Your task to perform on an android device: Look up the best rated hair dryer on Walmart. Image 0: 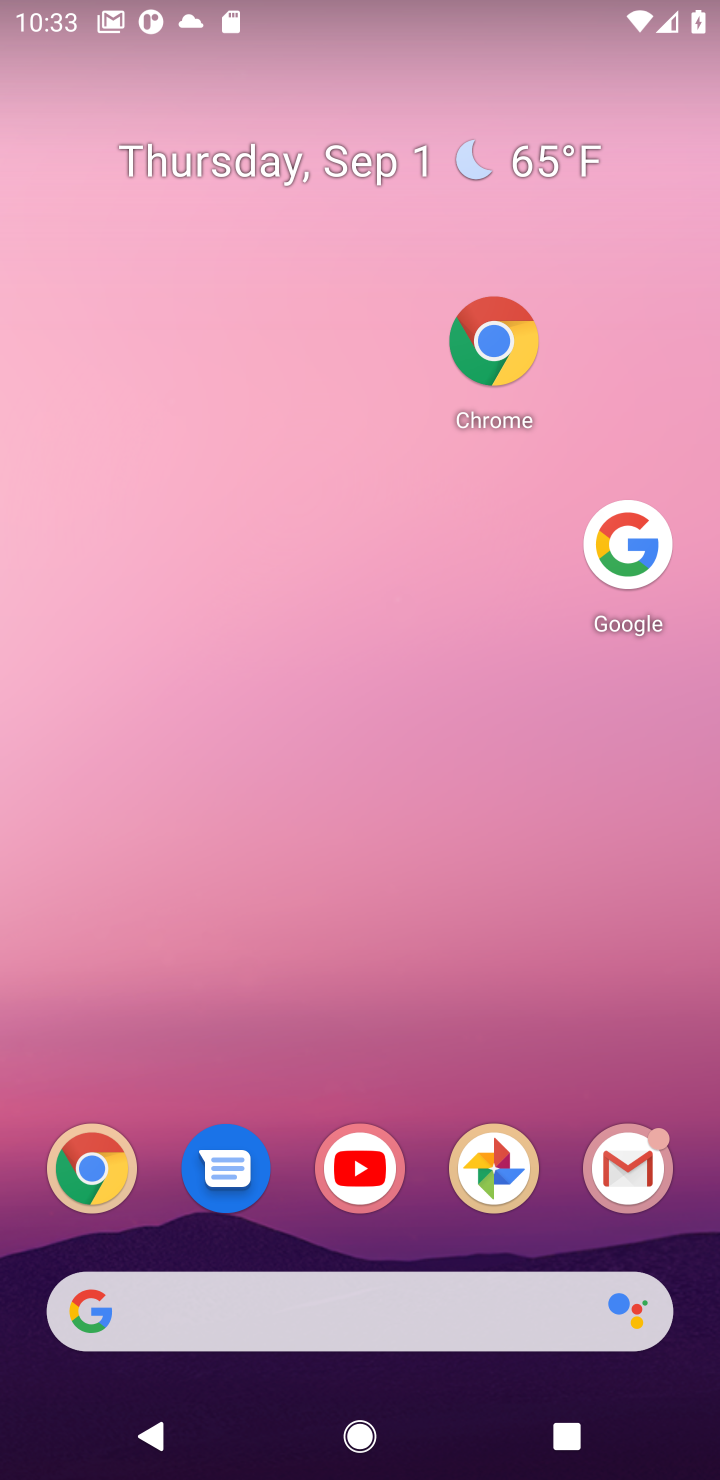
Step 0: drag from (401, 651) to (401, 396)
Your task to perform on an android device: Look up the best rated hair dryer on Walmart. Image 1: 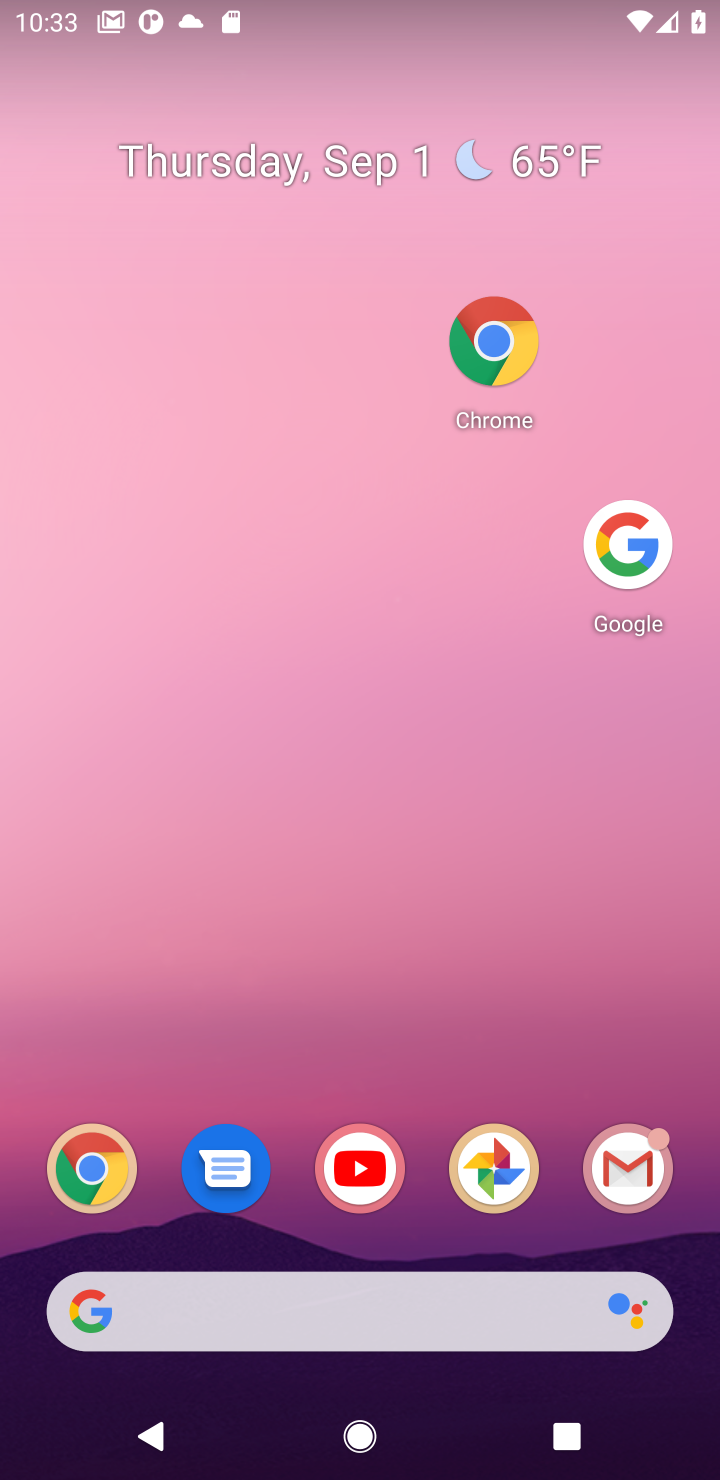
Step 1: click (392, 251)
Your task to perform on an android device: Look up the best rated hair dryer on Walmart. Image 2: 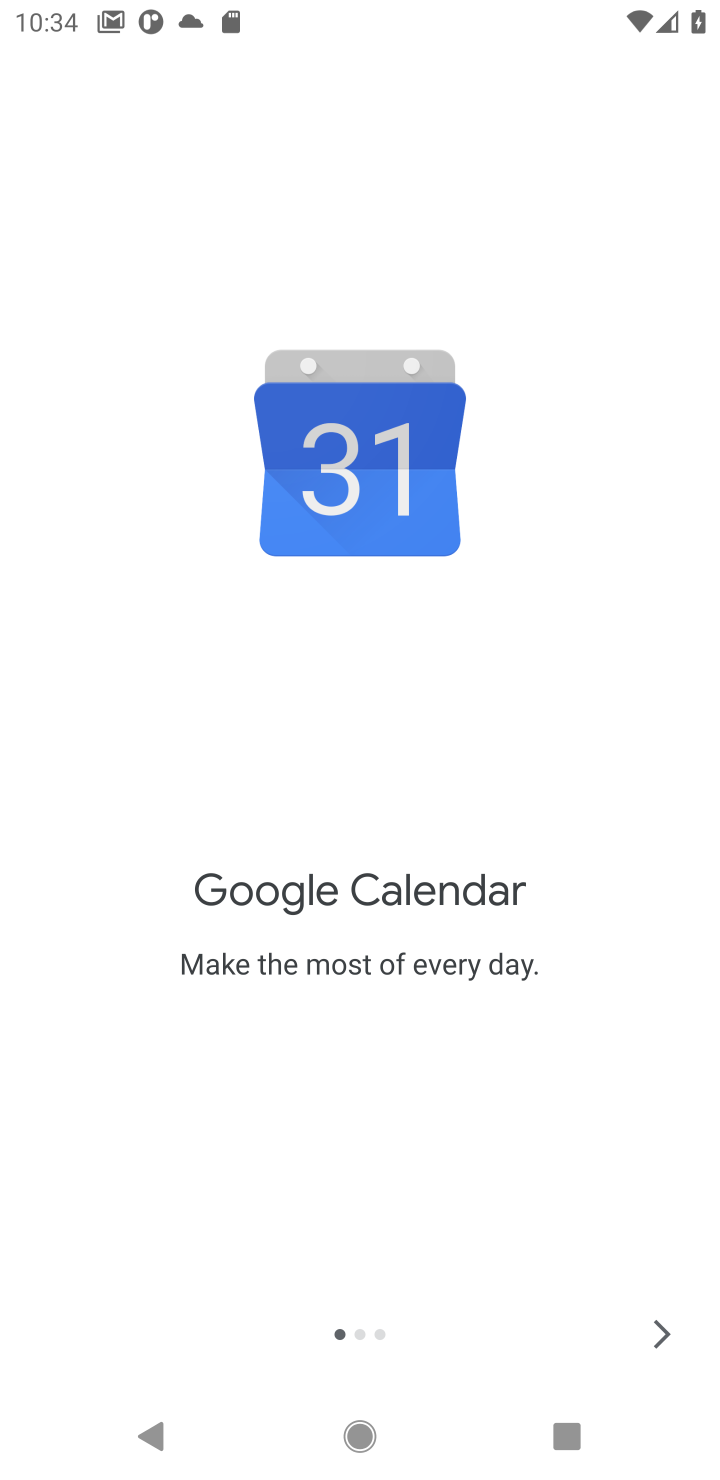
Step 2: press home button
Your task to perform on an android device: Look up the best rated hair dryer on Walmart. Image 3: 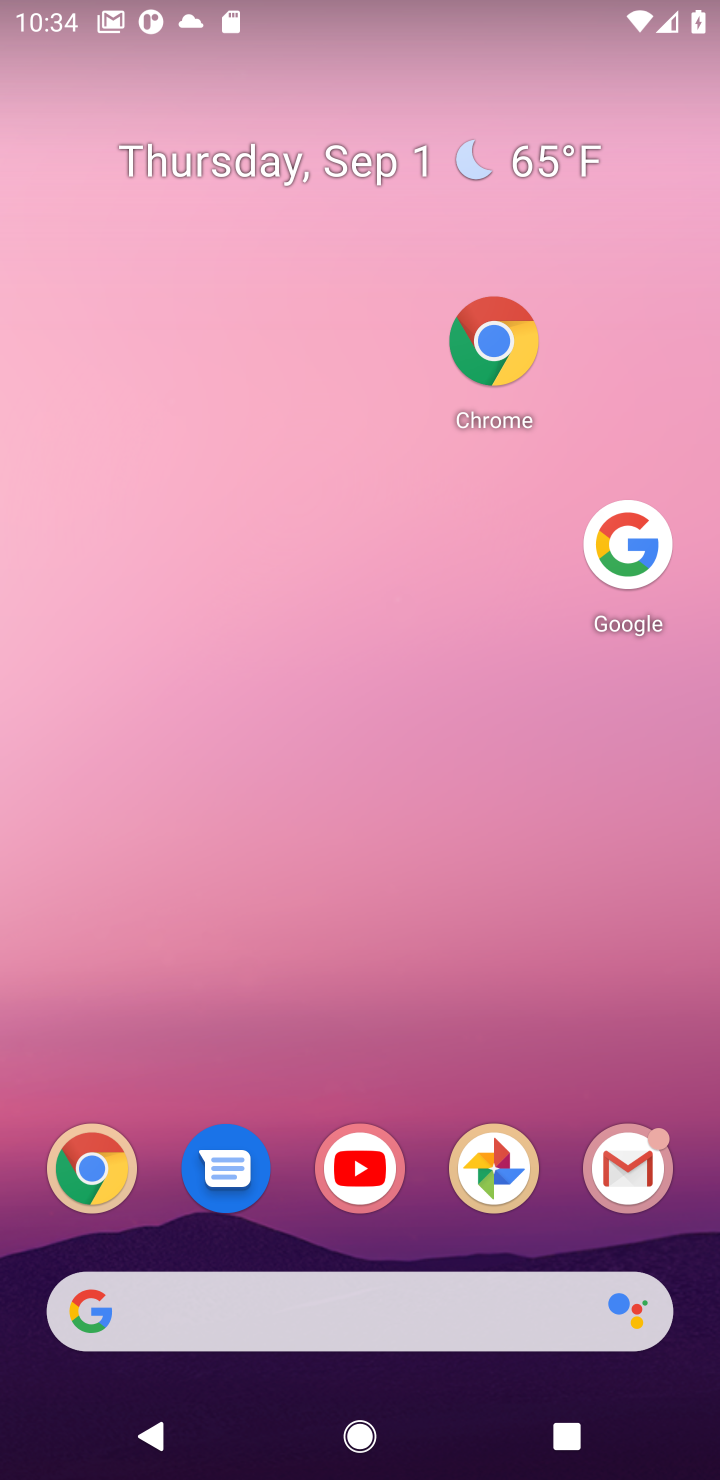
Step 3: click (600, 527)
Your task to perform on an android device: Look up the best rated hair dryer on Walmart. Image 4: 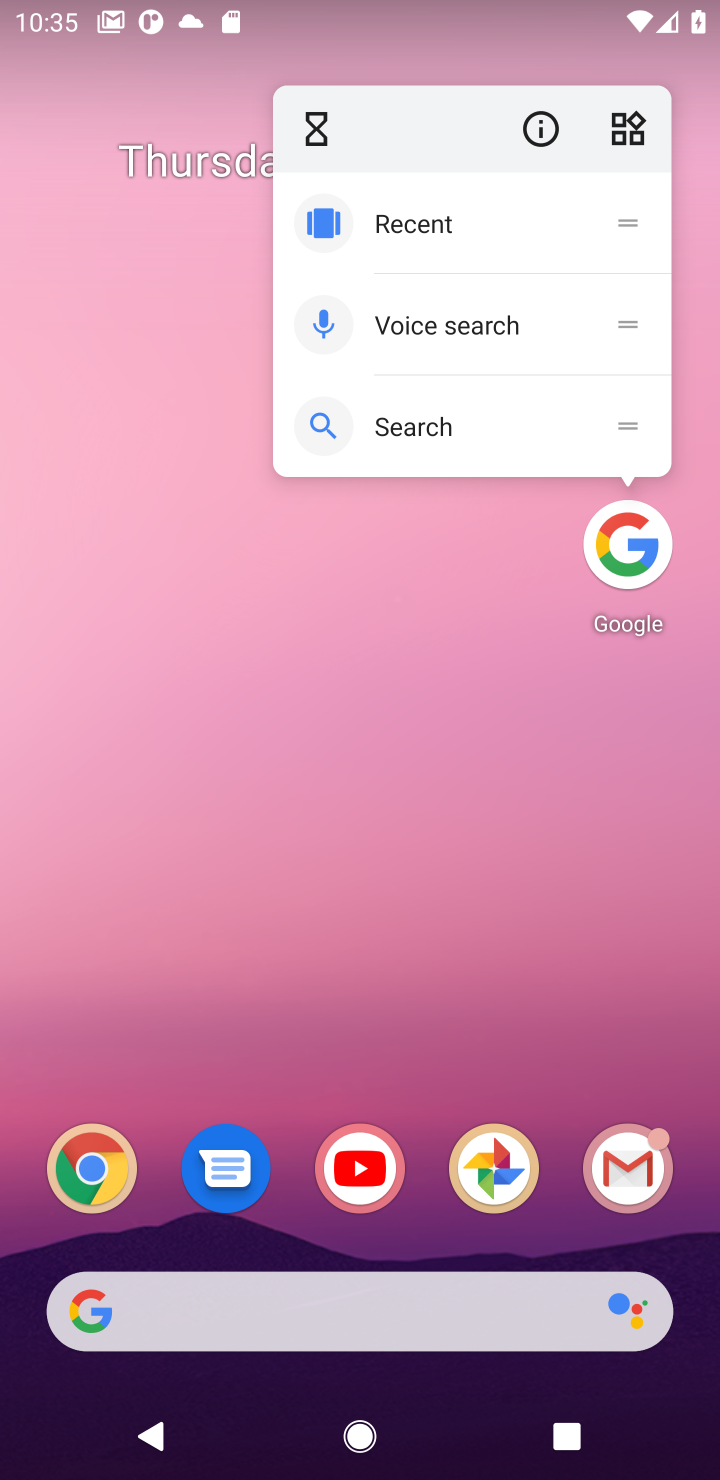
Step 4: click (621, 549)
Your task to perform on an android device: Look up the best rated hair dryer on Walmart. Image 5: 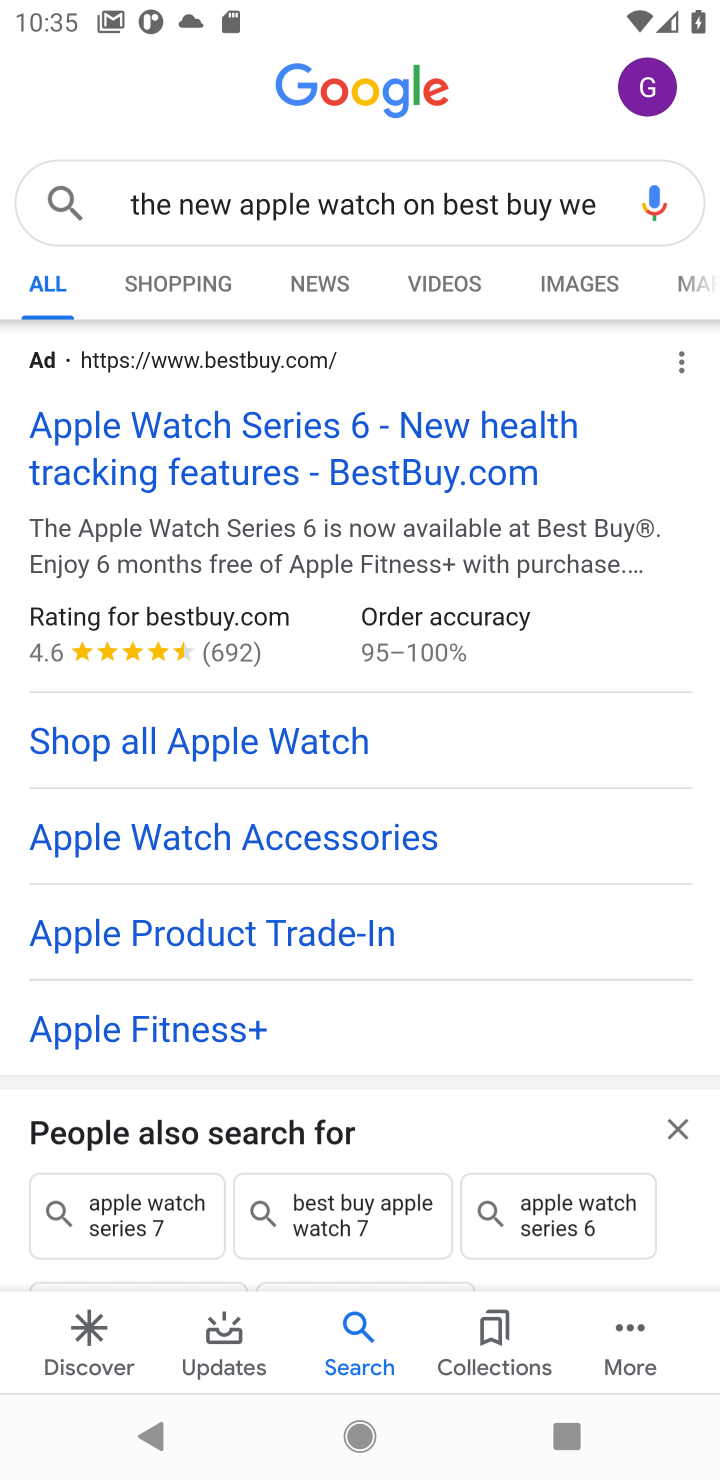
Step 5: click (570, 208)
Your task to perform on an android device: Look up the best rated hair dryer on Walmart. Image 6: 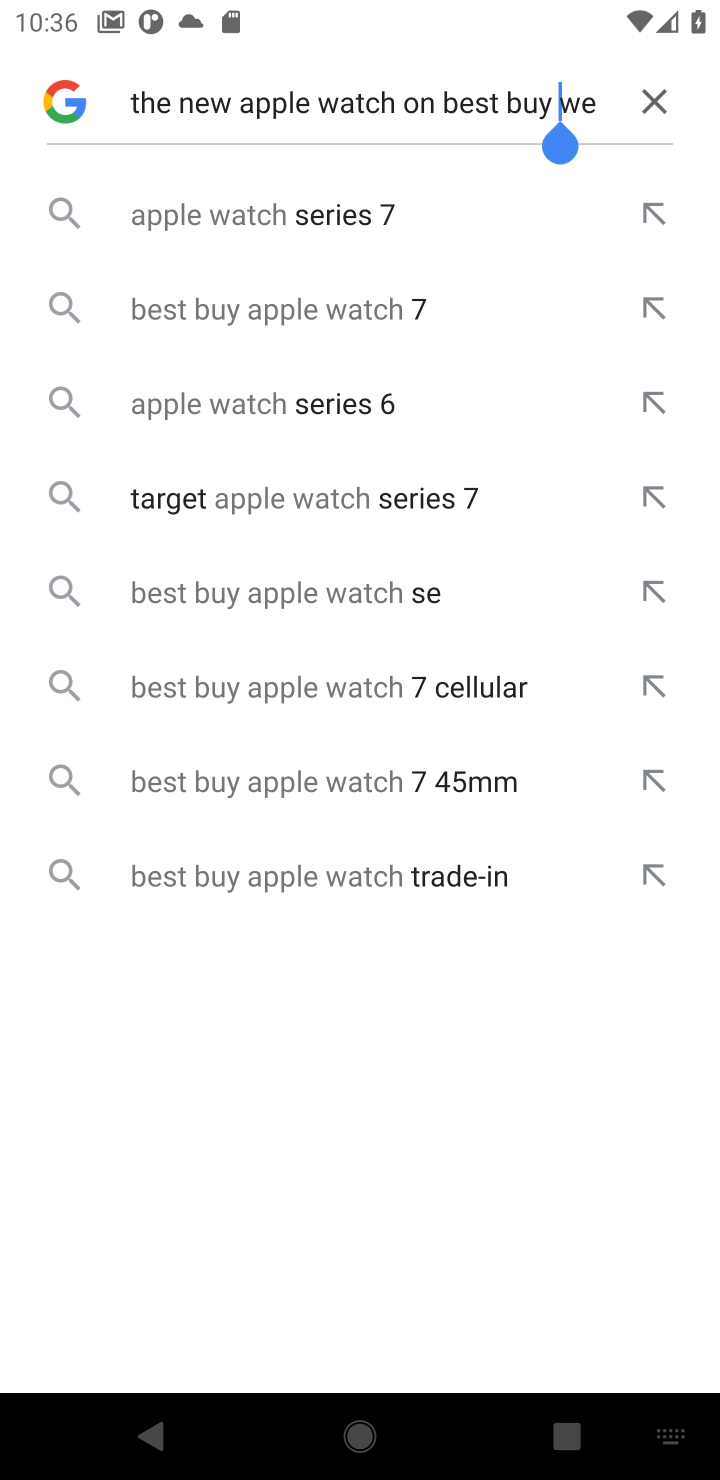
Step 6: click (652, 101)
Your task to perform on an android device: Look up the best rated hair dryer on Walmart. Image 7: 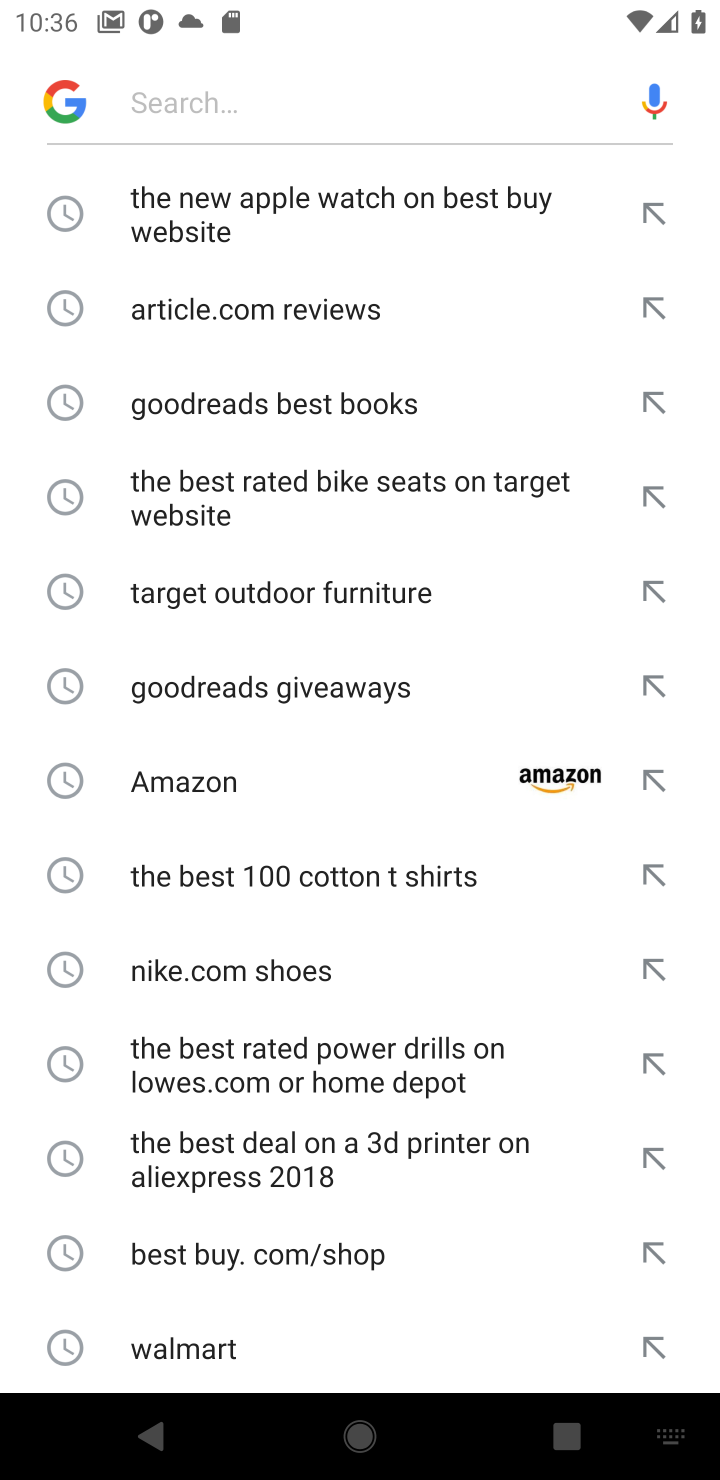
Step 7: click (167, 1338)
Your task to perform on an android device: Look up the best rated hair dryer on Walmart. Image 8: 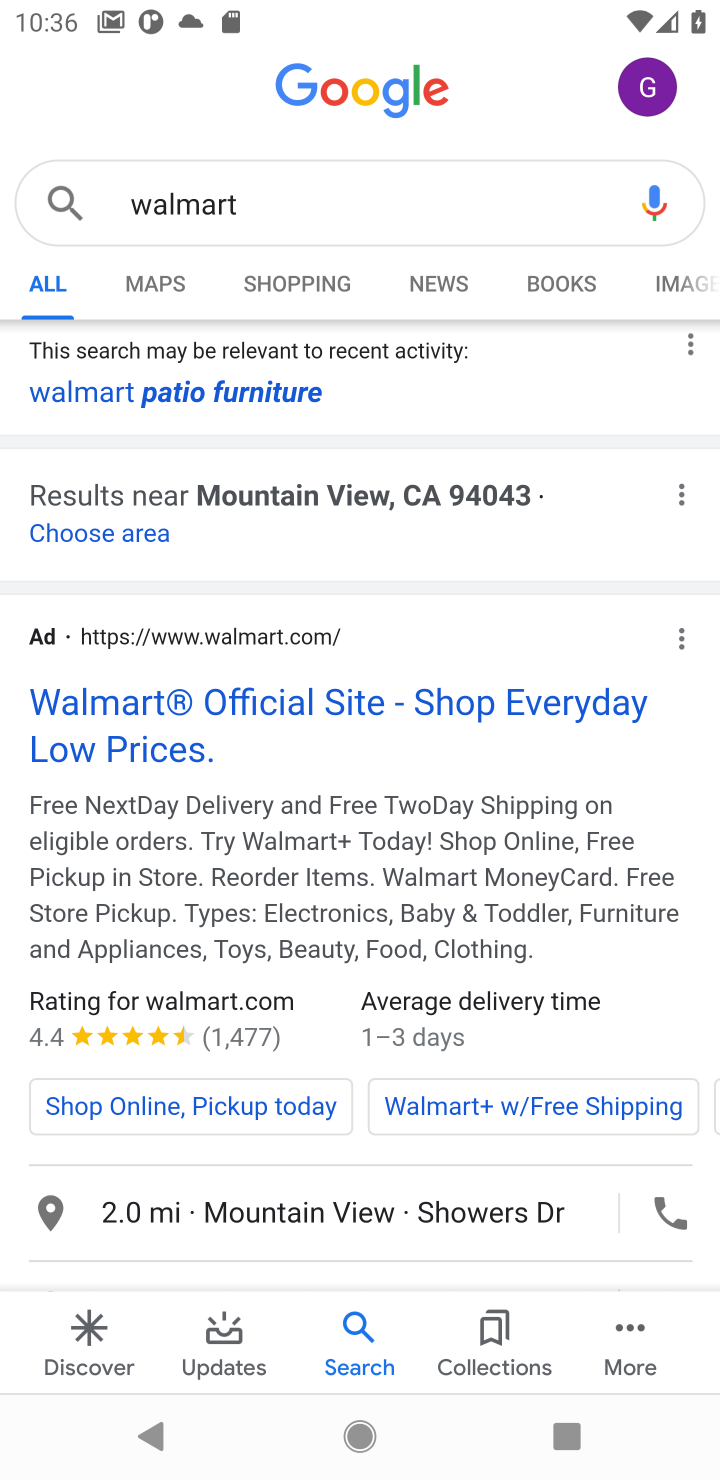
Step 8: click (137, 715)
Your task to perform on an android device: Look up the best rated hair dryer on Walmart. Image 9: 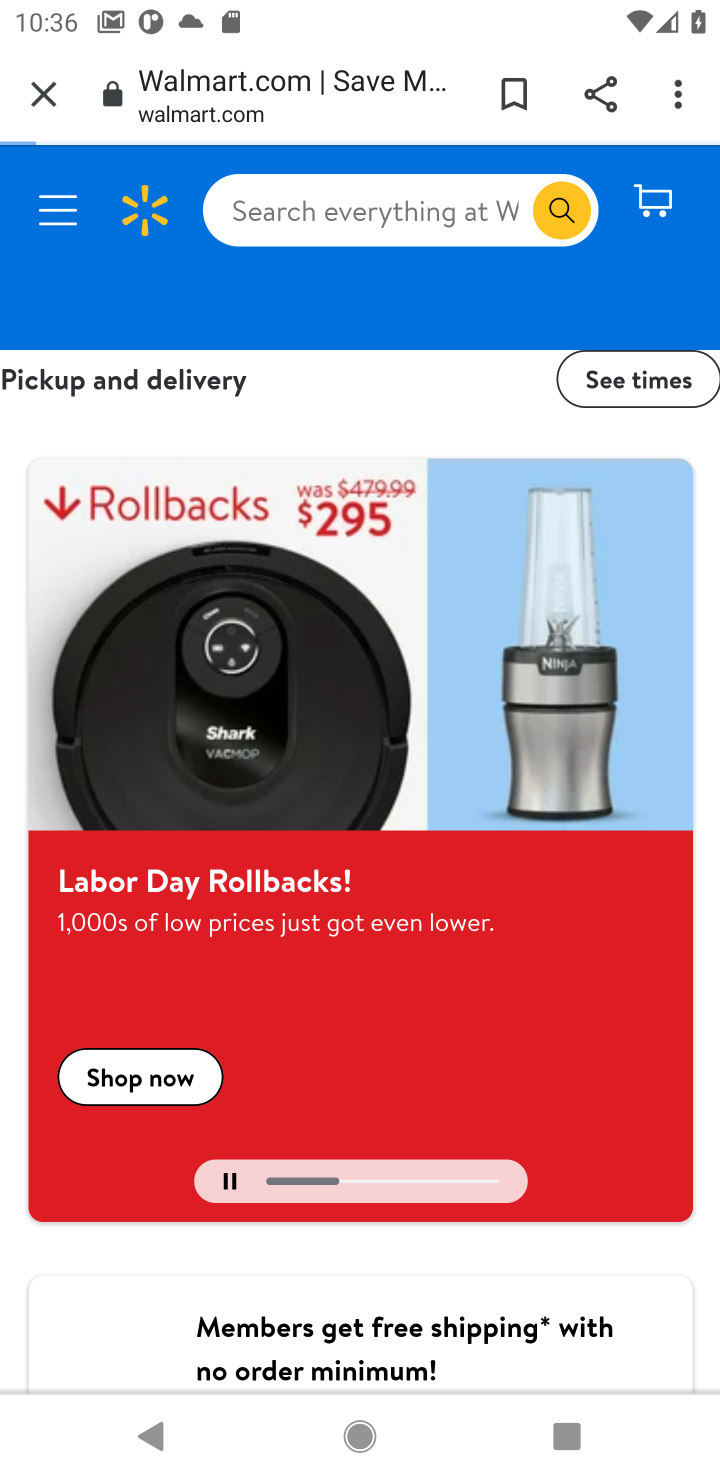
Step 9: click (348, 197)
Your task to perform on an android device: Look up the best rated hair dryer on Walmart. Image 10: 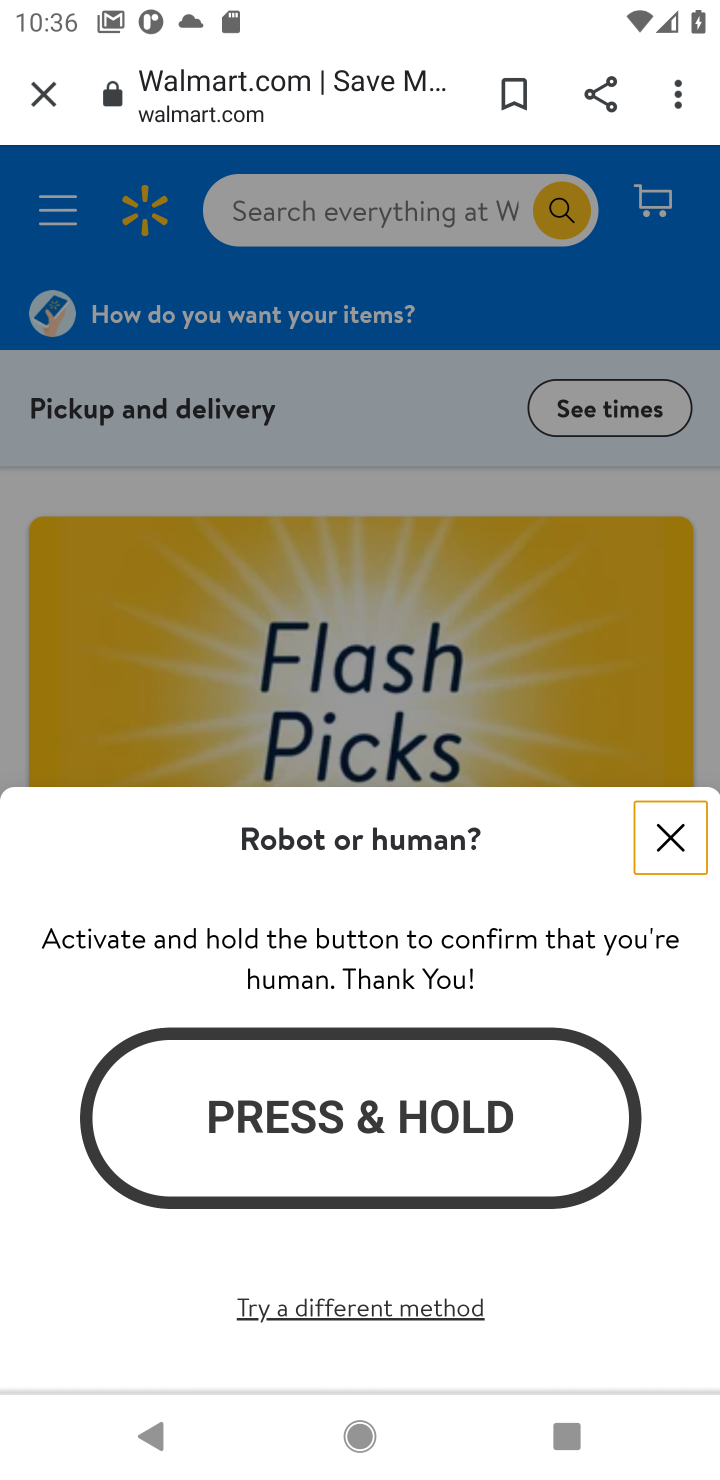
Step 10: click (306, 208)
Your task to perform on an android device: Look up the best rated hair dryer on Walmart. Image 11: 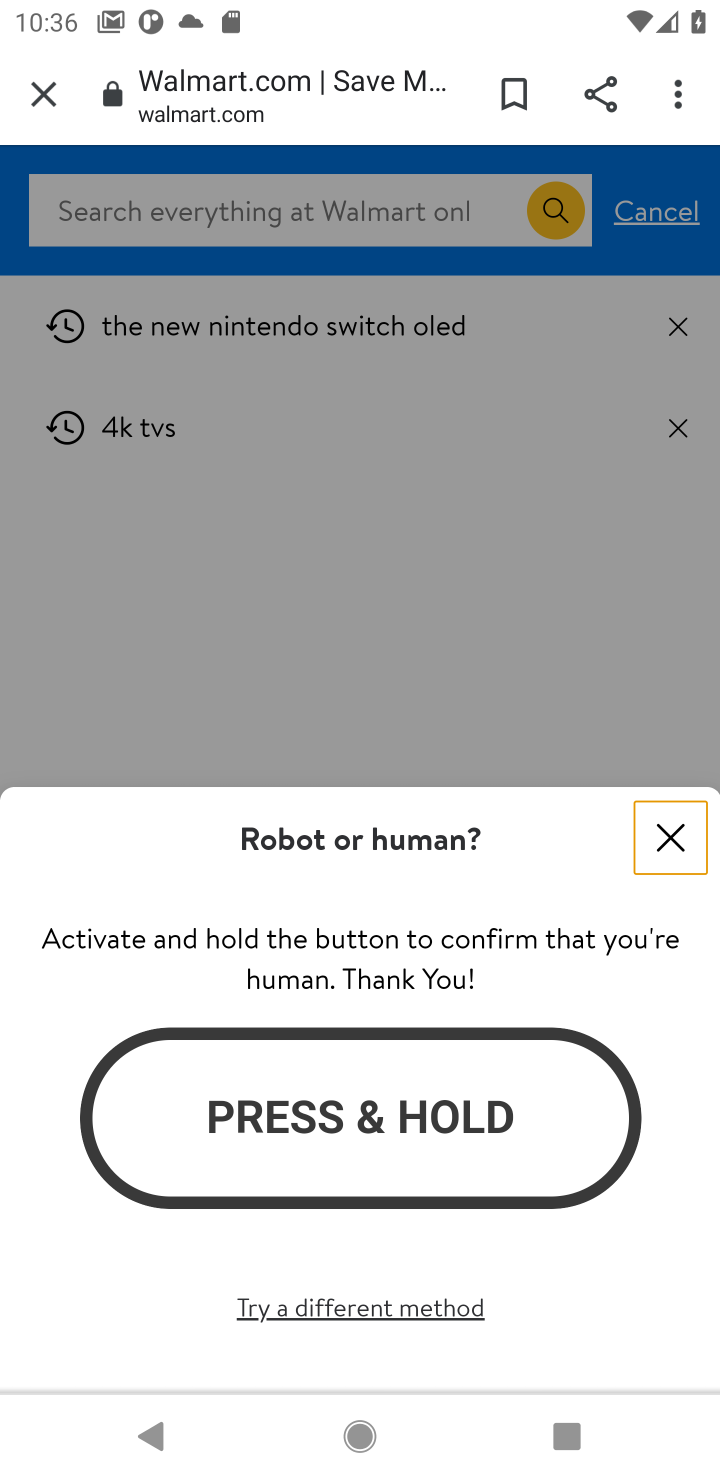
Step 11: type "the best rated hair dryer "
Your task to perform on an android device: Look up the best rated hair dryer on Walmart. Image 12: 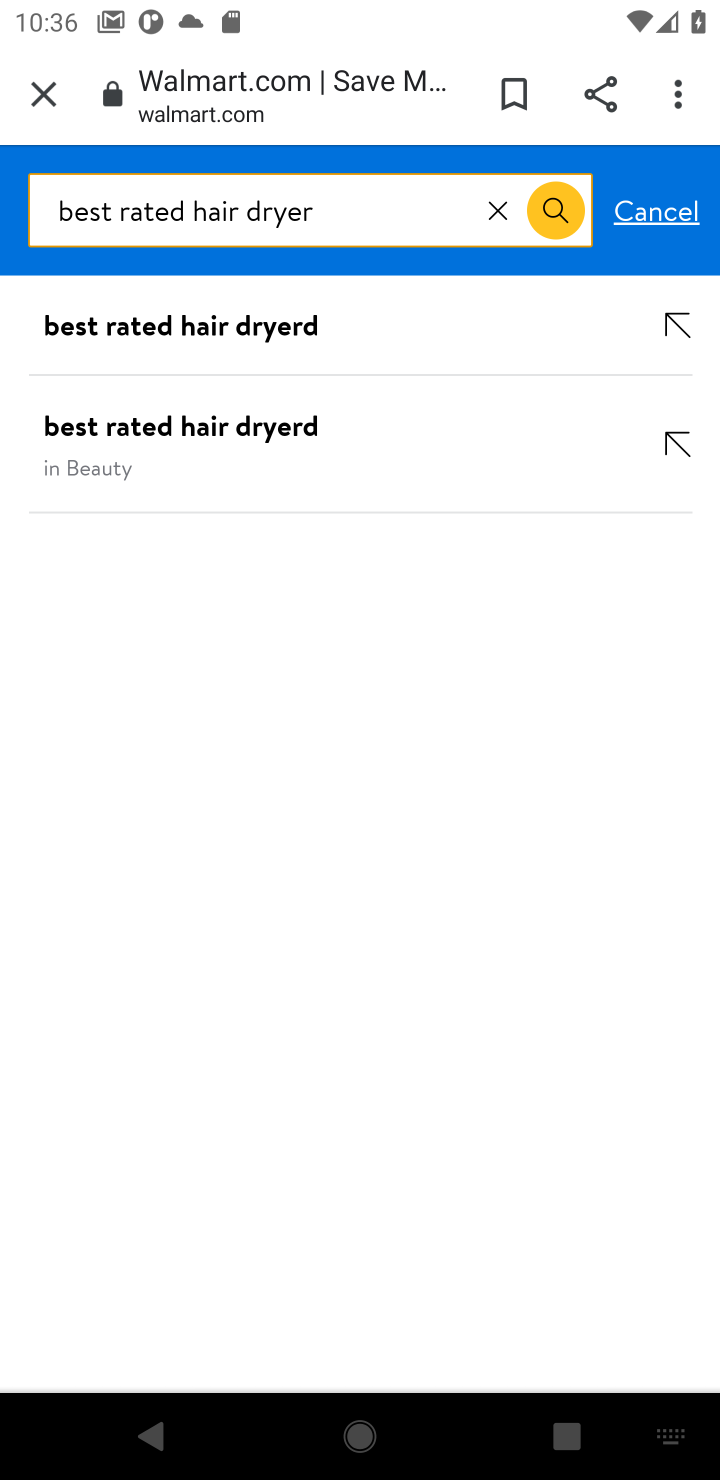
Step 12: click (265, 313)
Your task to perform on an android device: Look up the best rated hair dryer on Walmart. Image 13: 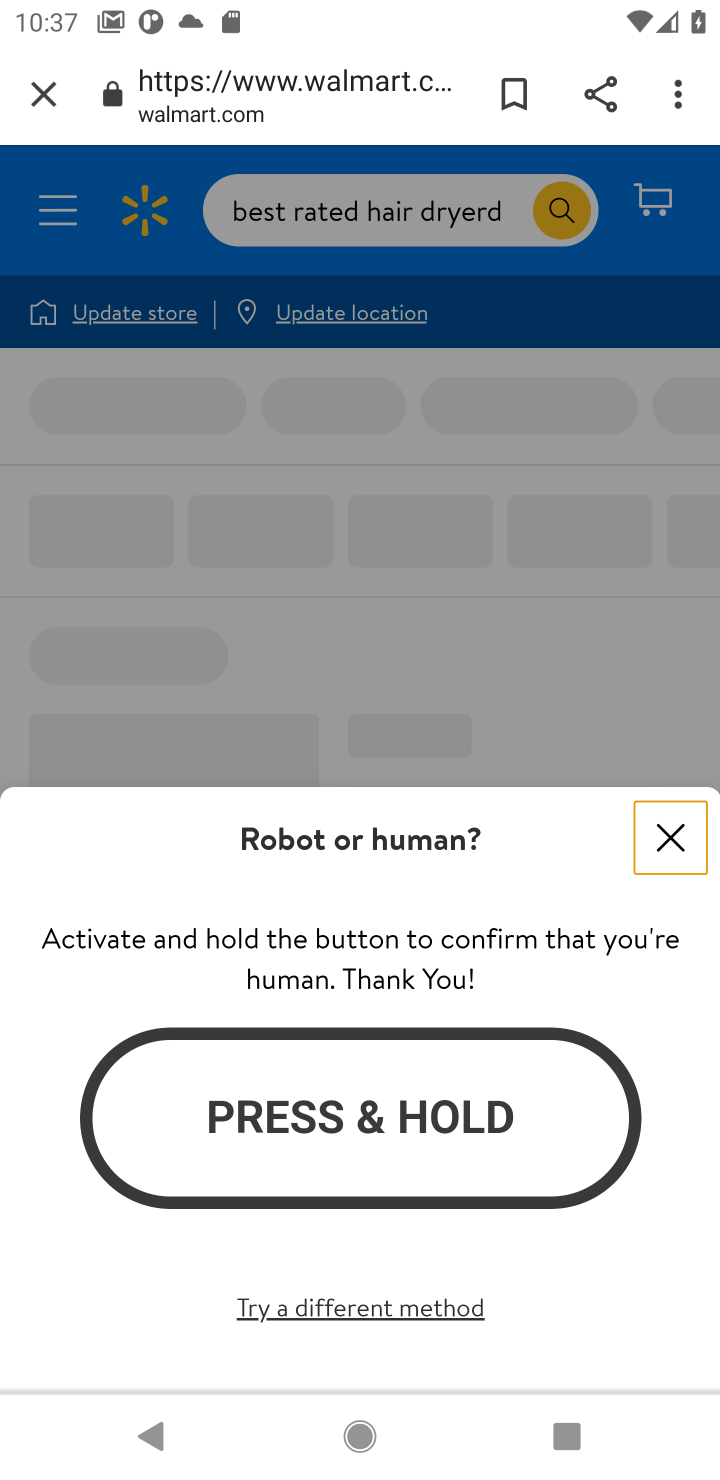
Step 13: task complete